Your task to perform on an android device: Open eBay Image 0: 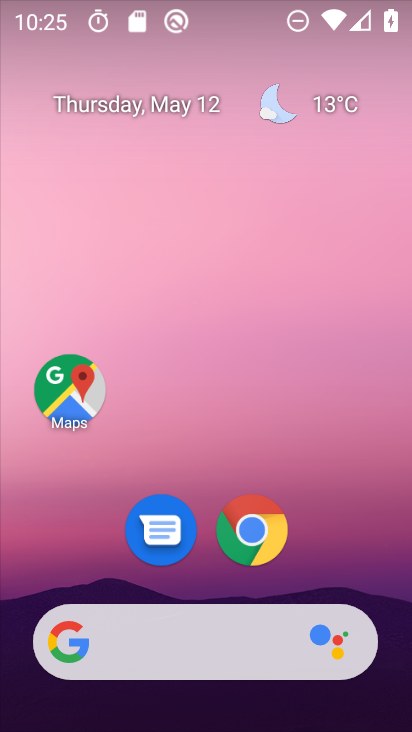
Step 0: click (275, 550)
Your task to perform on an android device: Open eBay Image 1: 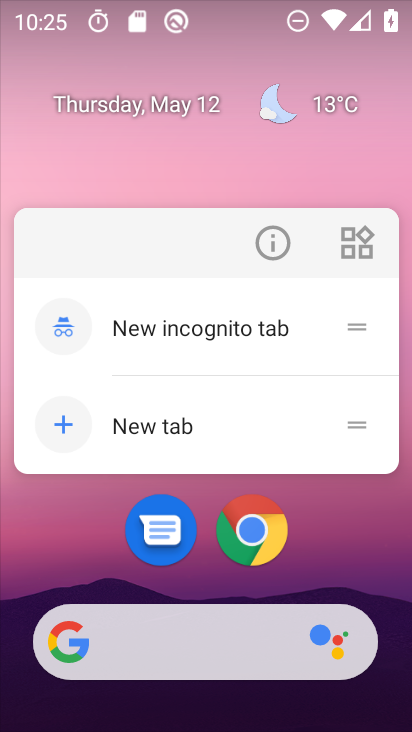
Step 1: click (275, 550)
Your task to perform on an android device: Open eBay Image 2: 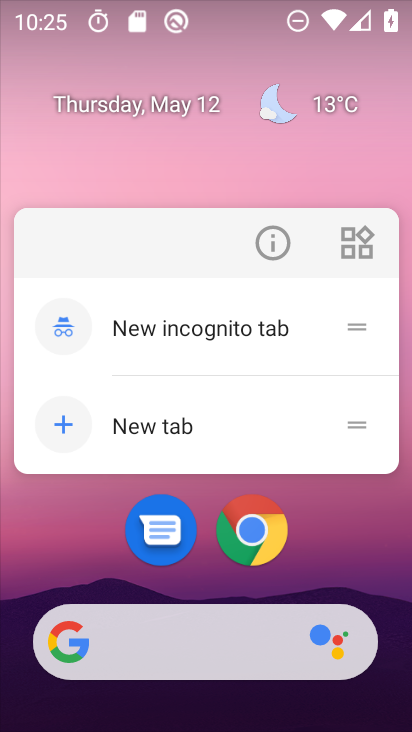
Step 2: click (228, 417)
Your task to perform on an android device: Open eBay Image 3: 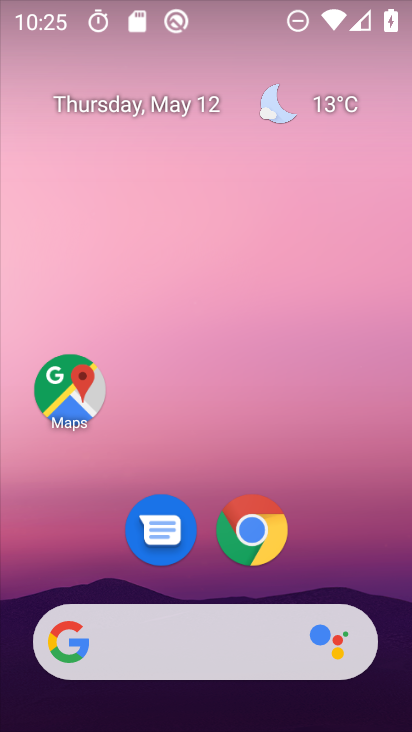
Step 3: click (240, 550)
Your task to perform on an android device: Open eBay Image 4: 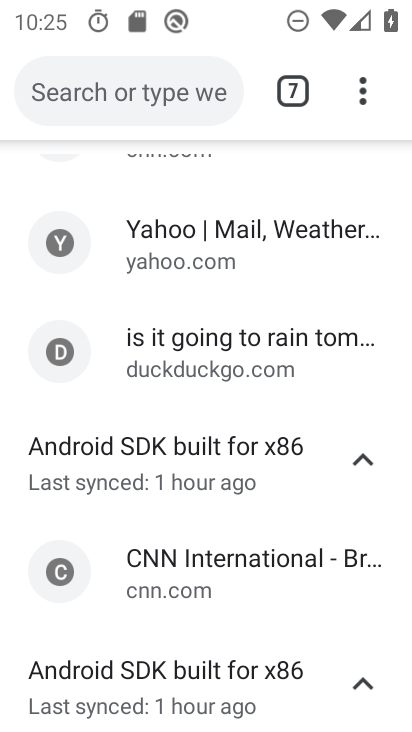
Step 4: click (293, 91)
Your task to perform on an android device: Open eBay Image 5: 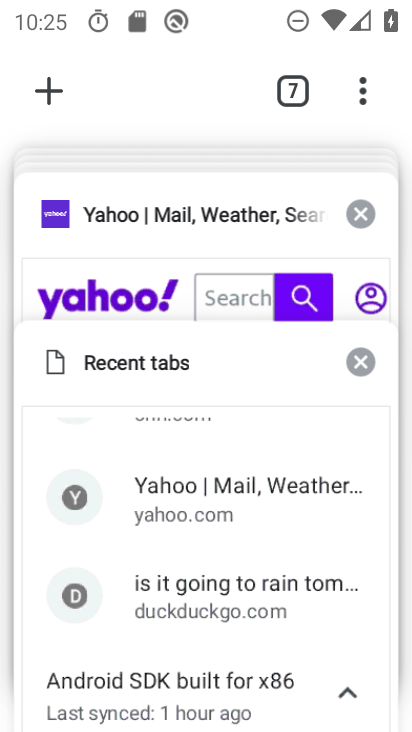
Step 5: drag from (155, 232) to (172, 629)
Your task to perform on an android device: Open eBay Image 6: 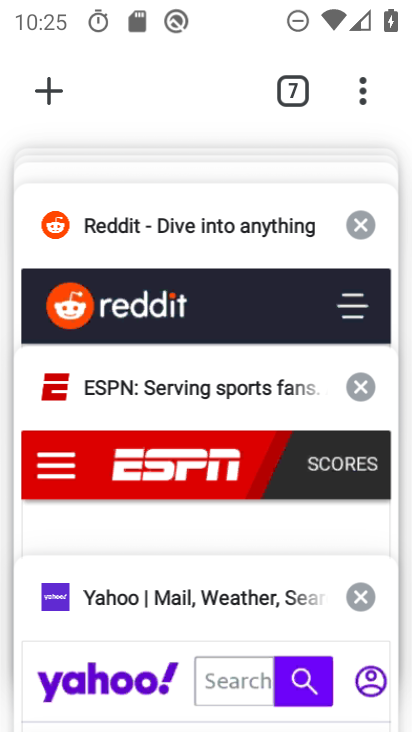
Step 6: drag from (209, 274) to (205, 593)
Your task to perform on an android device: Open eBay Image 7: 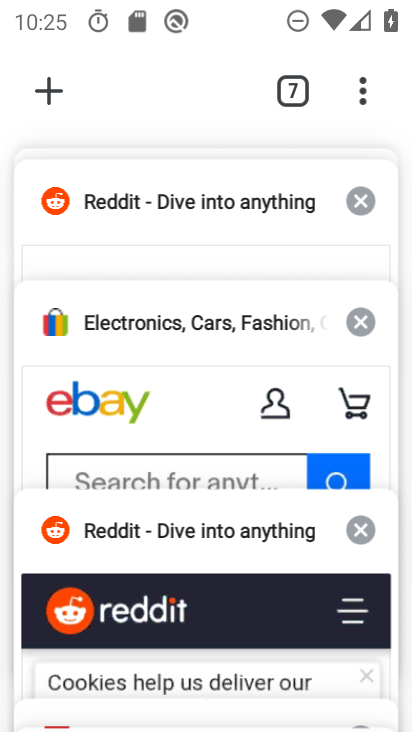
Step 7: click (198, 369)
Your task to perform on an android device: Open eBay Image 8: 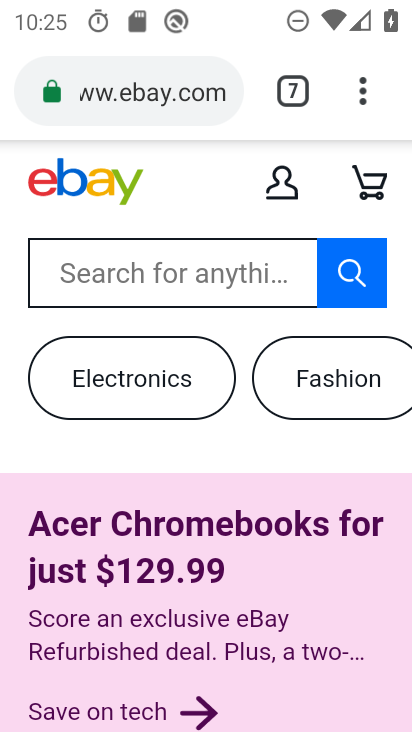
Step 8: task complete